Your task to perform on an android device: star an email in the gmail app Image 0: 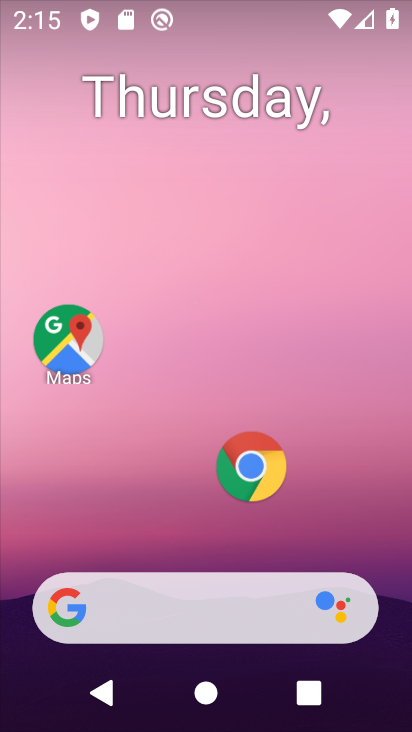
Step 0: drag from (216, 497) to (236, 224)
Your task to perform on an android device: star an email in the gmail app Image 1: 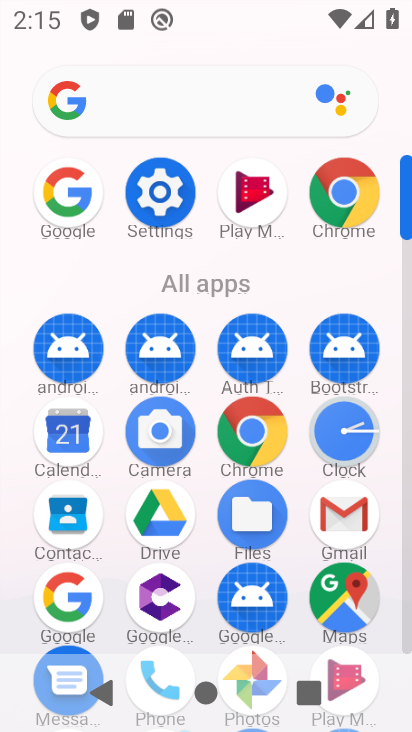
Step 1: click (333, 501)
Your task to perform on an android device: star an email in the gmail app Image 2: 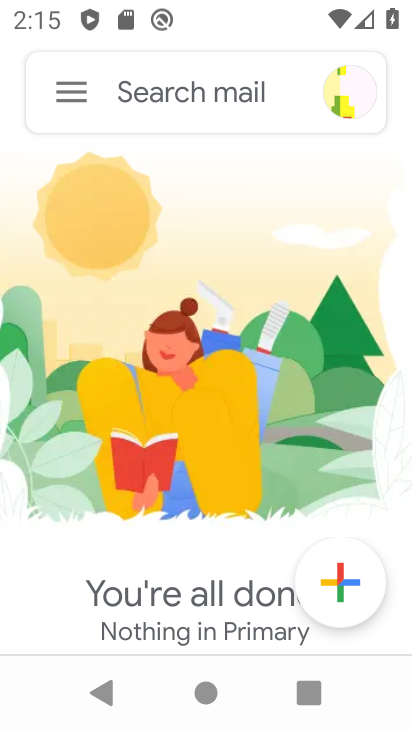
Step 2: click (81, 93)
Your task to perform on an android device: star an email in the gmail app Image 3: 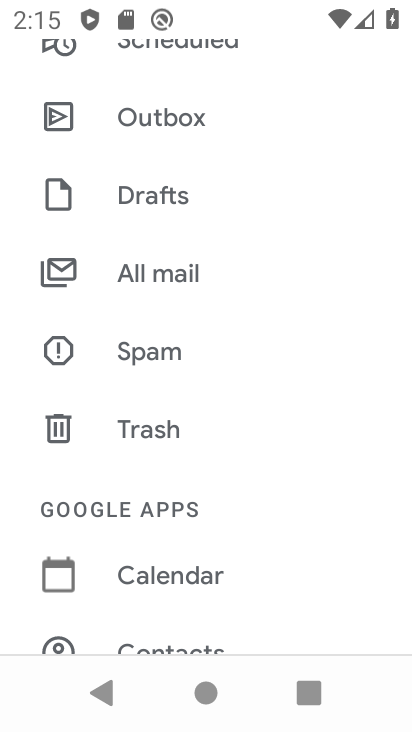
Step 3: drag from (250, 225) to (259, 462)
Your task to perform on an android device: star an email in the gmail app Image 4: 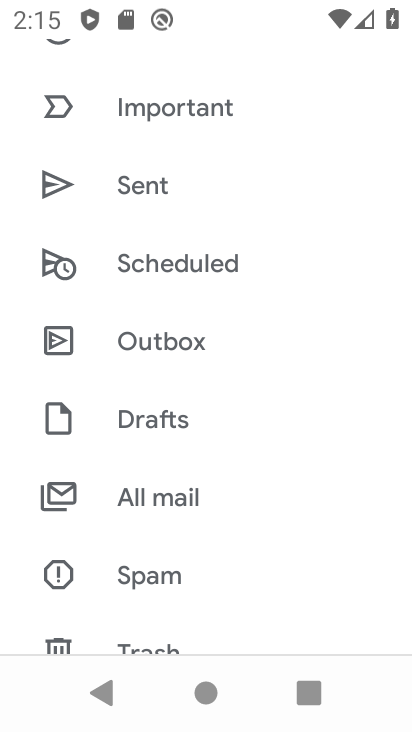
Step 4: click (220, 503)
Your task to perform on an android device: star an email in the gmail app Image 5: 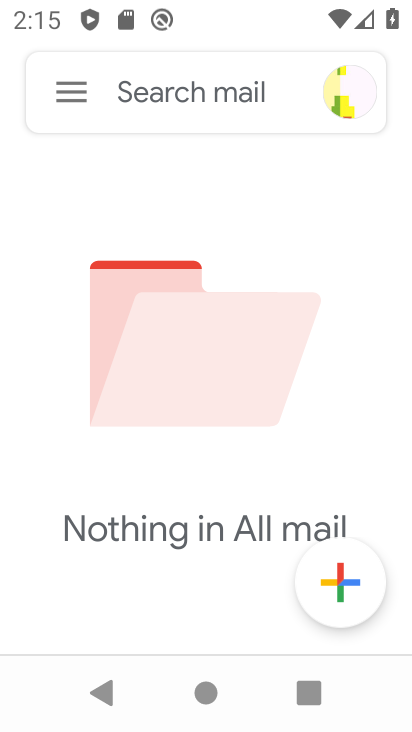
Step 5: task complete